Your task to perform on an android device: open a new tab in the chrome app Image 0: 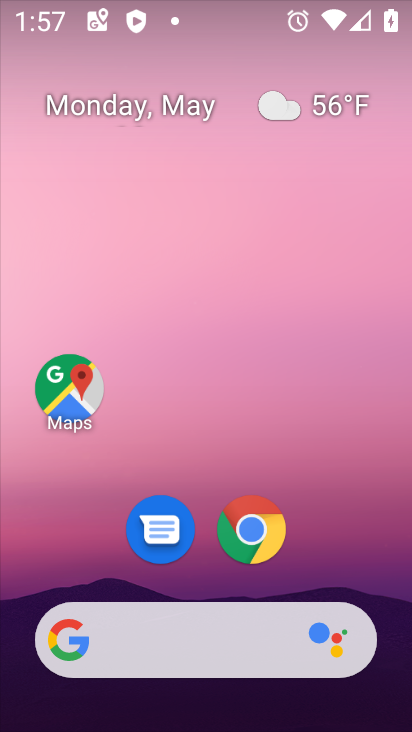
Step 0: click (243, 520)
Your task to perform on an android device: open a new tab in the chrome app Image 1: 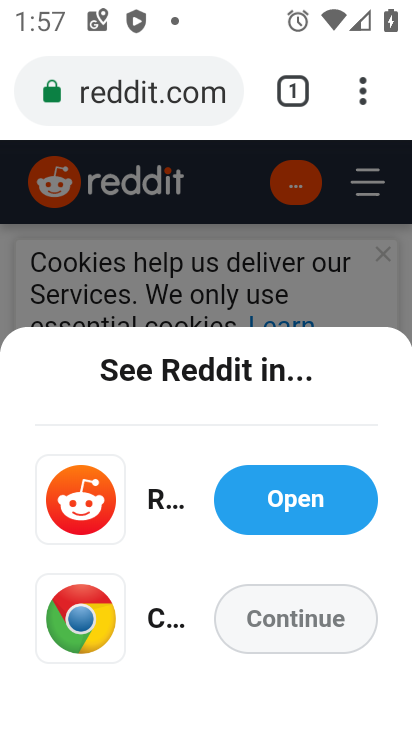
Step 1: click (368, 93)
Your task to perform on an android device: open a new tab in the chrome app Image 2: 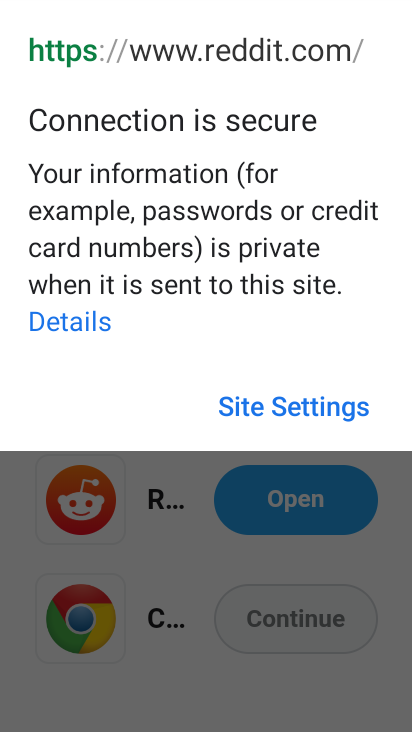
Step 2: click (169, 539)
Your task to perform on an android device: open a new tab in the chrome app Image 3: 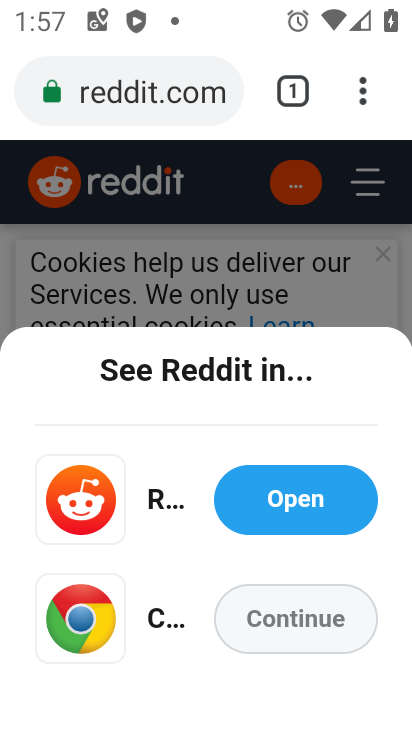
Step 3: click (360, 88)
Your task to perform on an android device: open a new tab in the chrome app Image 4: 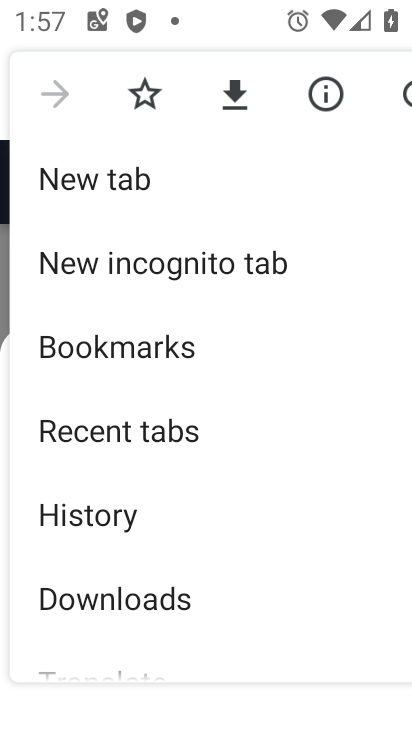
Step 4: click (70, 192)
Your task to perform on an android device: open a new tab in the chrome app Image 5: 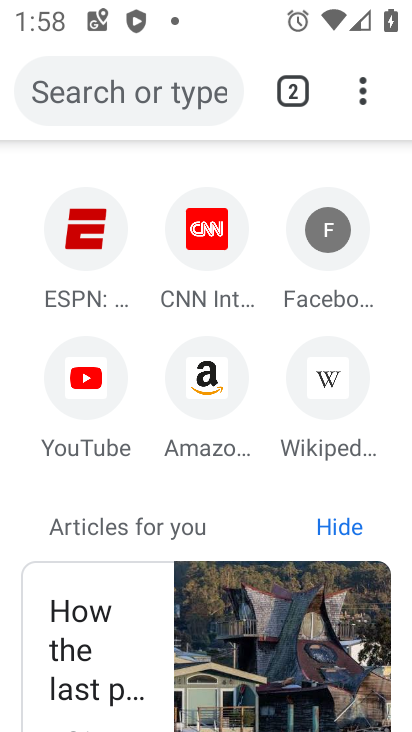
Step 5: task complete